Your task to perform on an android device: set the timer Image 0: 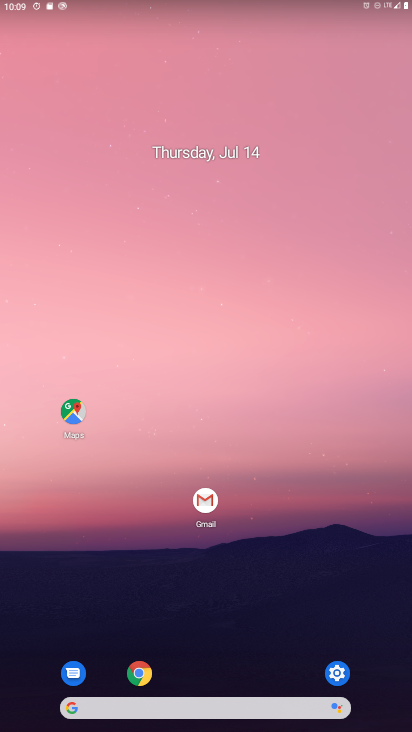
Step 0: press home button
Your task to perform on an android device: set the timer Image 1: 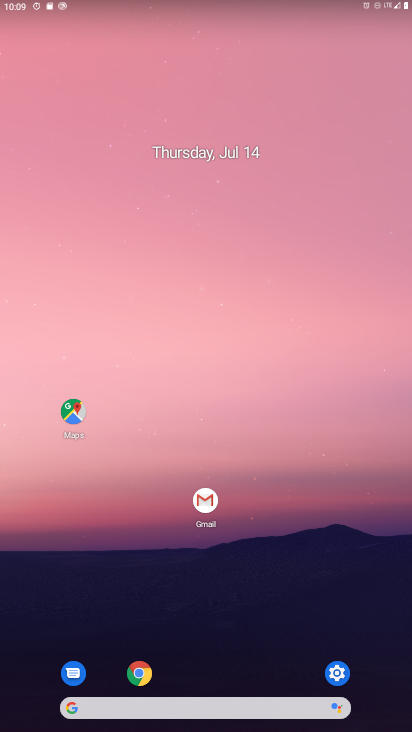
Step 1: drag from (216, 704) to (411, 25)
Your task to perform on an android device: set the timer Image 2: 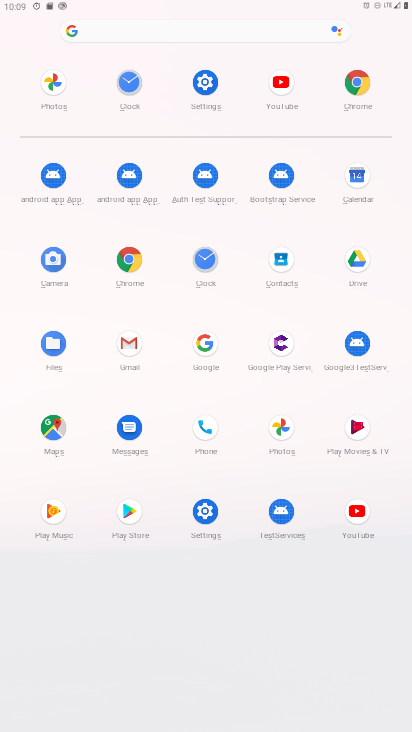
Step 2: click (198, 261)
Your task to perform on an android device: set the timer Image 3: 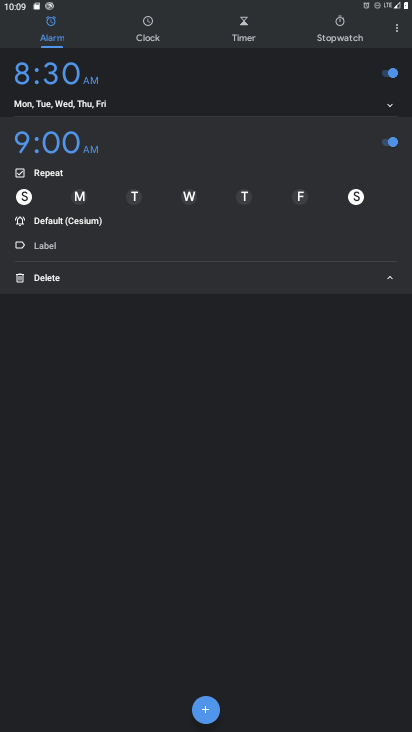
Step 3: click (243, 36)
Your task to perform on an android device: set the timer Image 4: 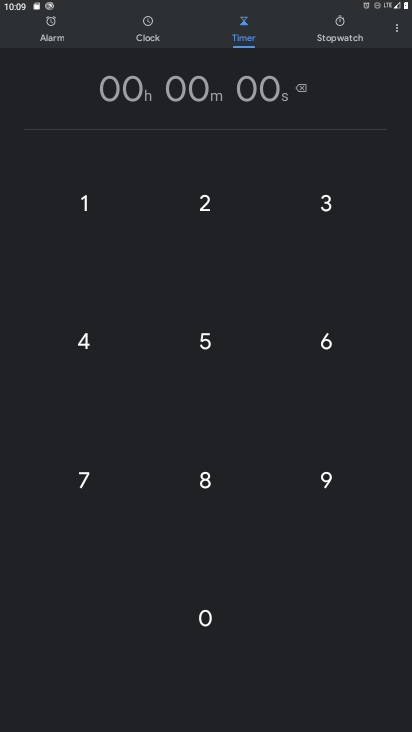
Step 4: click (192, 212)
Your task to perform on an android device: set the timer Image 5: 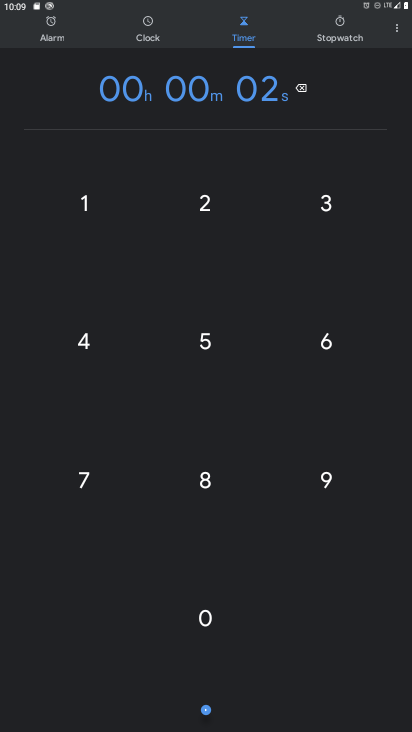
Step 5: click (99, 318)
Your task to perform on an android device: set the timer Image 6: 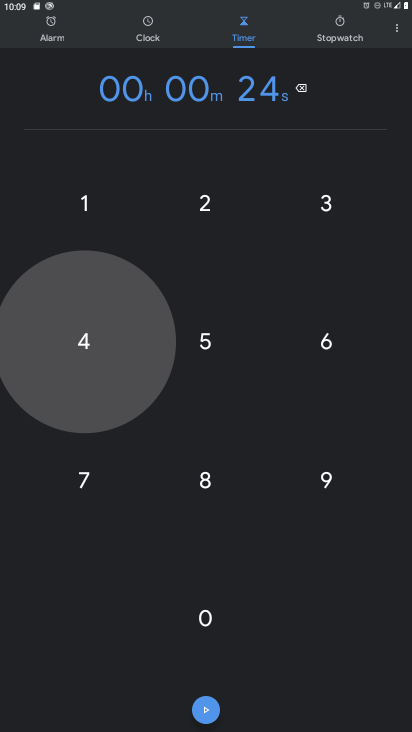
Step 6: click (133, 352)
Your task to perform on an android device: set the timer Image 7: 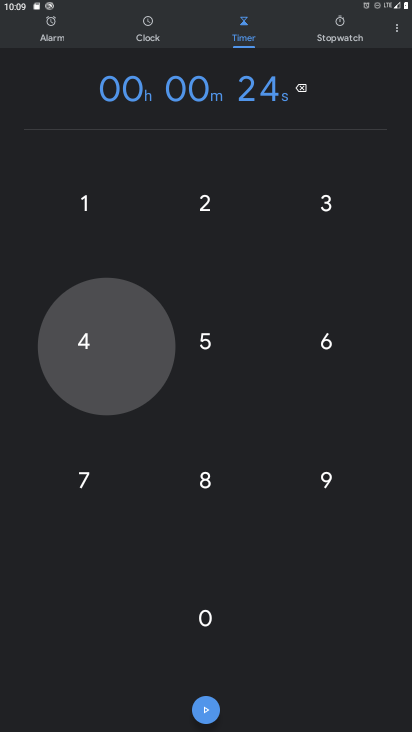
Step 7: click (205, 348)
Your task to perform on an android device: set the timer Image 8: 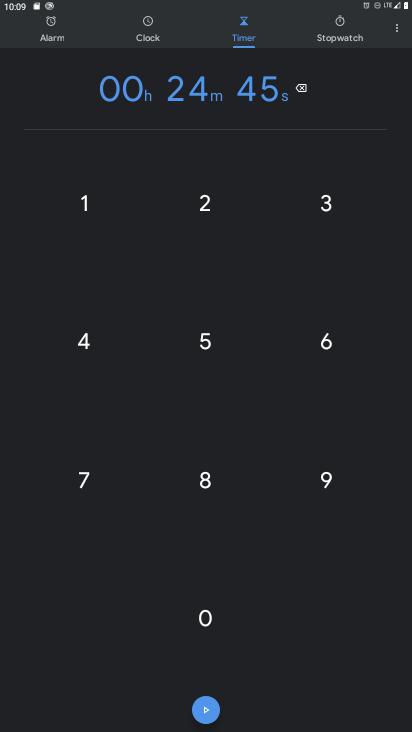
Step 8: click (174, 449)
Your task to perform on an android device: set the timer Image 9: 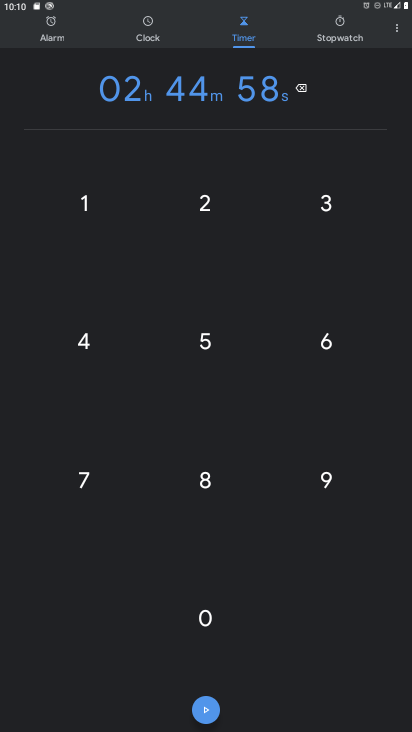
Step 9: task complete